Your task to perform on an android device: turn on sleep mode Image 0: 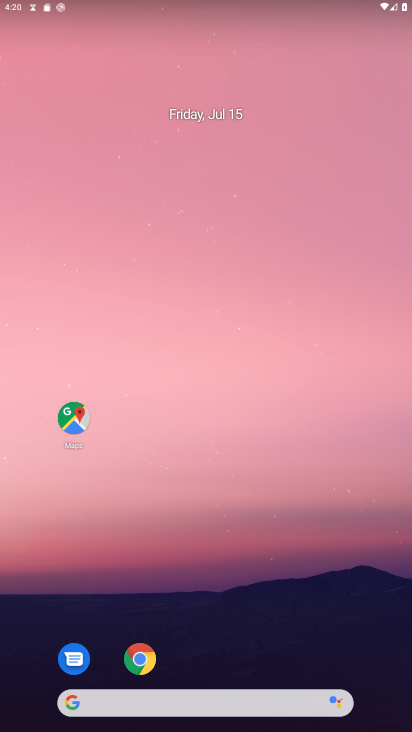
Step 0: drag from (216, 699) to (282, 4)
Your task to perform on an android device: turn on sleep mode Image 1: 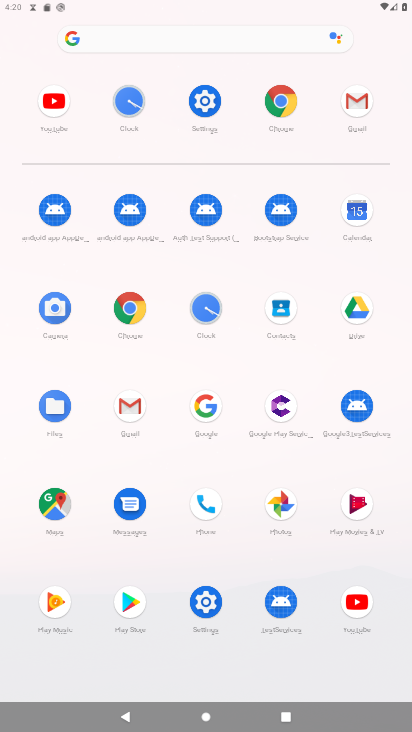
Step 1: click (204, 97)
Your task to perform on an android device: turn on sleep mode Image 2: 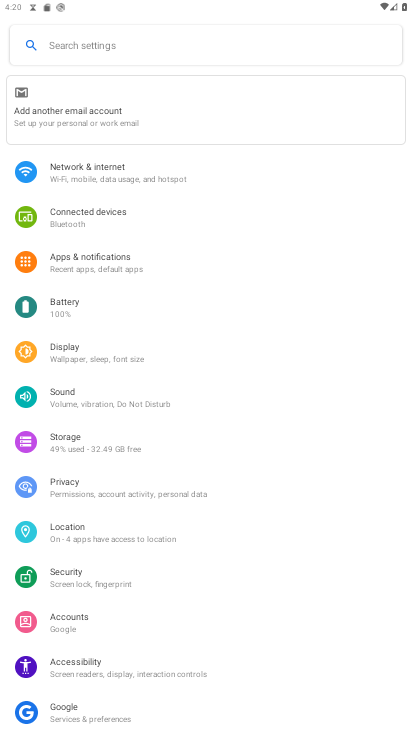
Step 2: click (90, 352)
Your task to perform on an android device: turn on sleep mode Image 3: 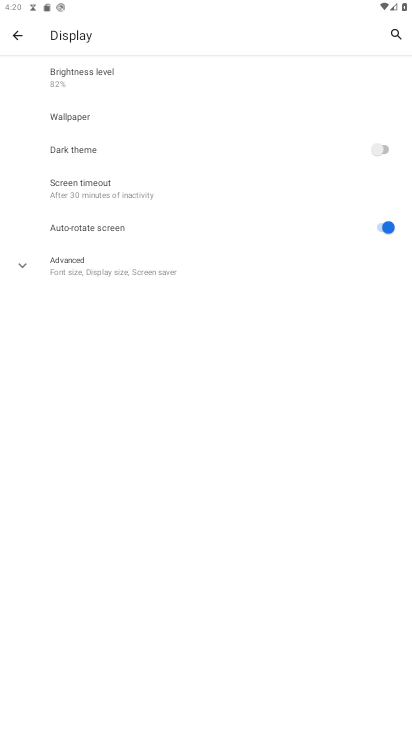
Step 3: click (109, 185)
Your task to perform on an android device: turn on sleep mode Image 4: 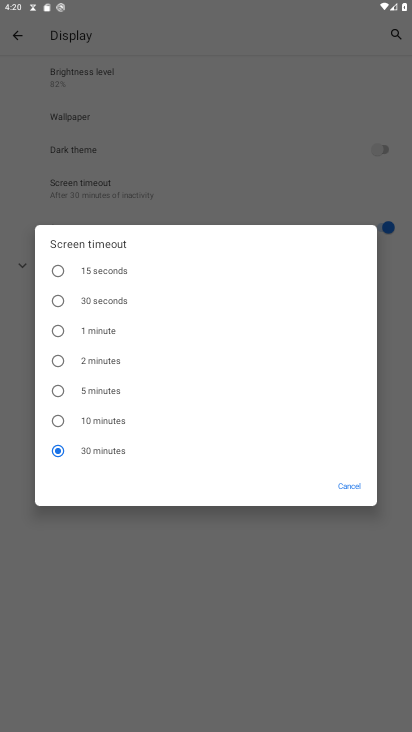
Step 4: click (351, 485)
Your task to perform on an android device: turn on sleep mode Image 5: 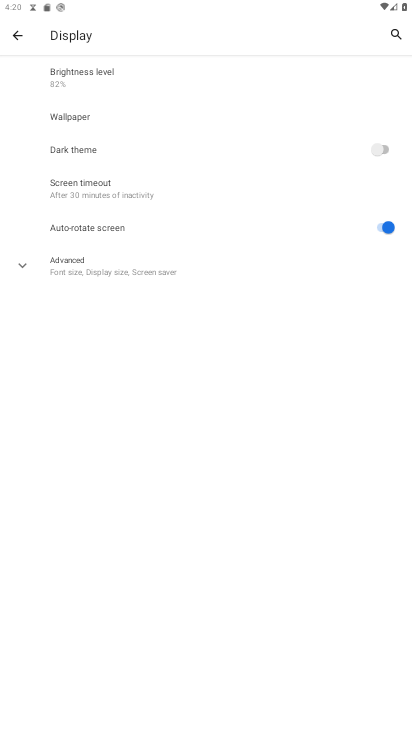
Step 5: task complete